Your task to perform on an android device: turn pop-ups on in chrome Image 0: 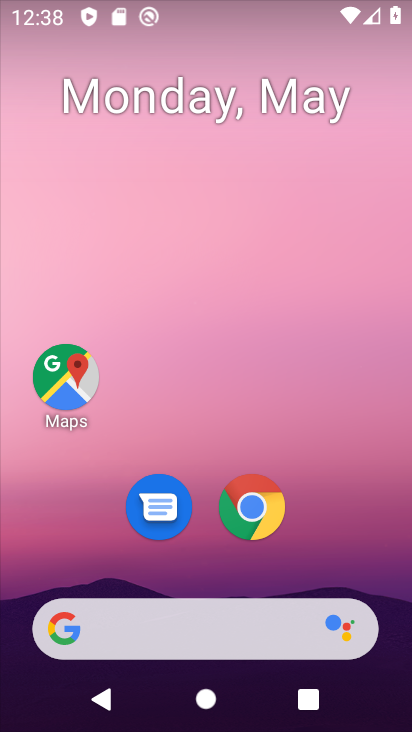
Step 0: click (257, 521)
Your task to perform on an android device: turn pop-ups on in chrome Image 1: 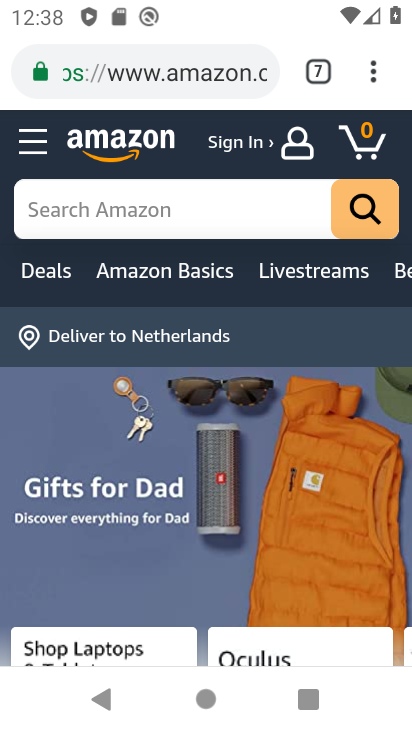
Step 1: click (372, 78)
Your task to perform on an android device: turn pop-ups on in chrome Image 2: 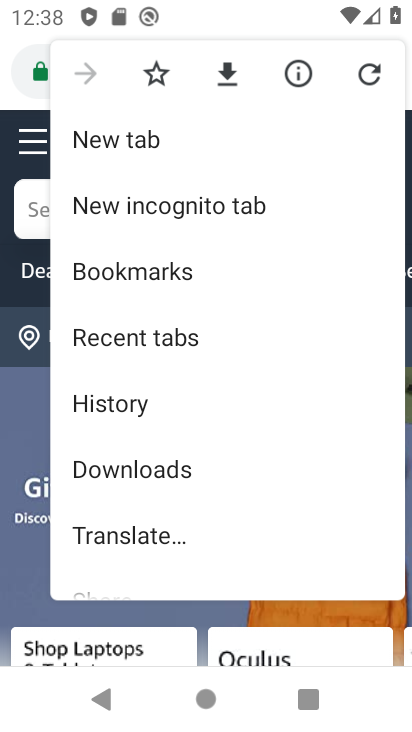
Step 2: drag from (164, 513) to (164, 166)
Your task to perform on an android device: turn pop-ups on in chrome Image 3: 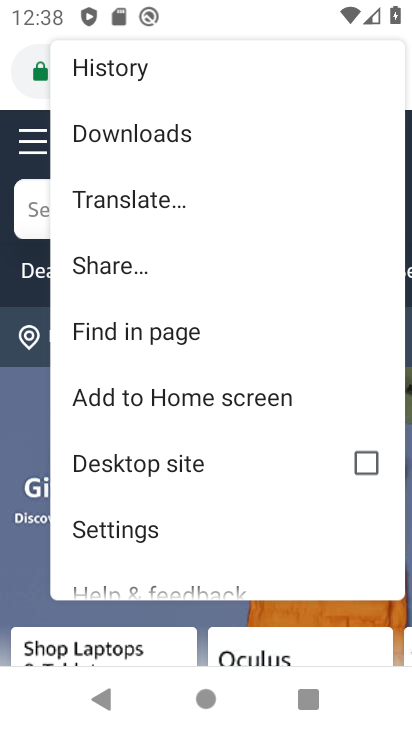
Step 3: click (133, 525)
Your task to perform on an android device: turn pop-ups on in chrome Image 4: 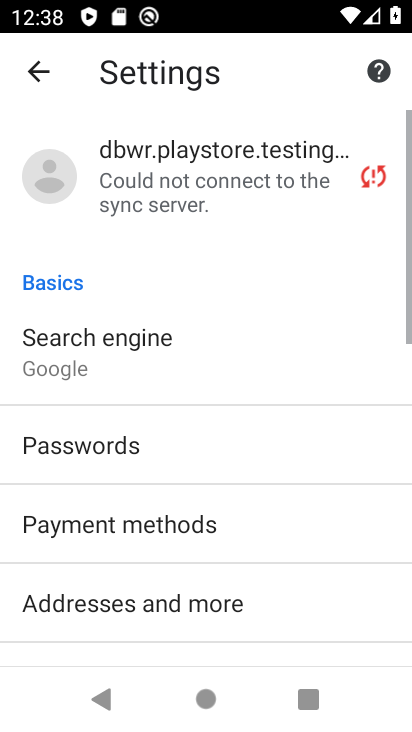
Step 4: drag from (147, 643) to (158, 265)
Your task to perform on an android device: turn pop-ups on in chrome Image 5: 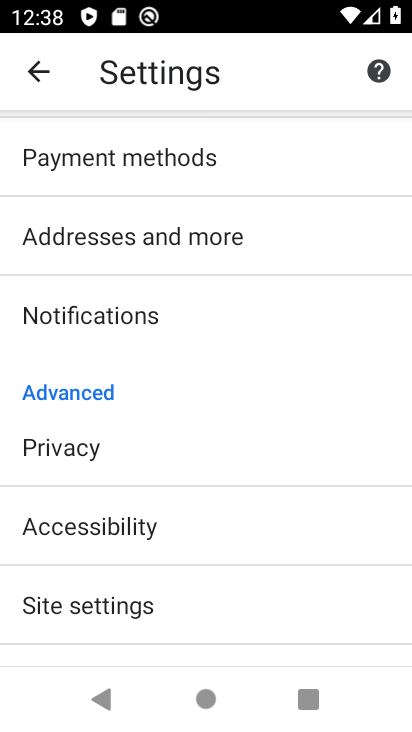
Step 5: drag from (177, 610) to (172, 206)
Your task to perform on an android device: turn pop-ups on in chrome Image 6: 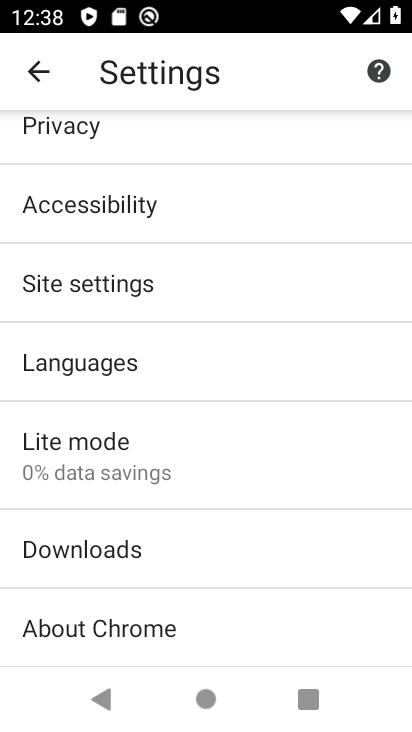
Step 6: click (101, 284)
Your task to perform on an android device: turn pop-ups on in chrome Image 7: 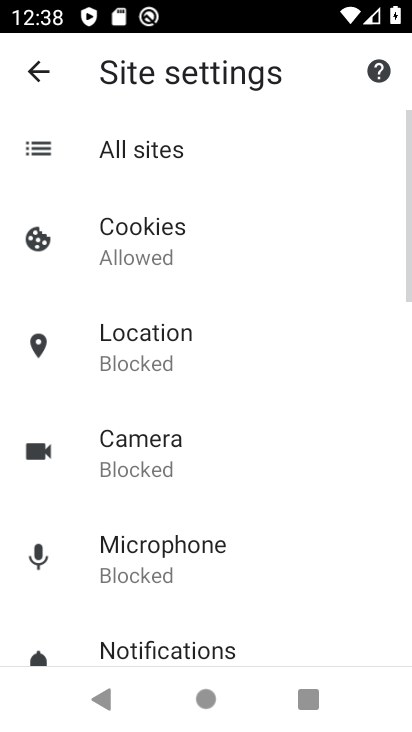
Step 7: drag from (128, 622) to (127, 208)
Your task to perform on an android device: turn pop-ups on in chrome Image 8: 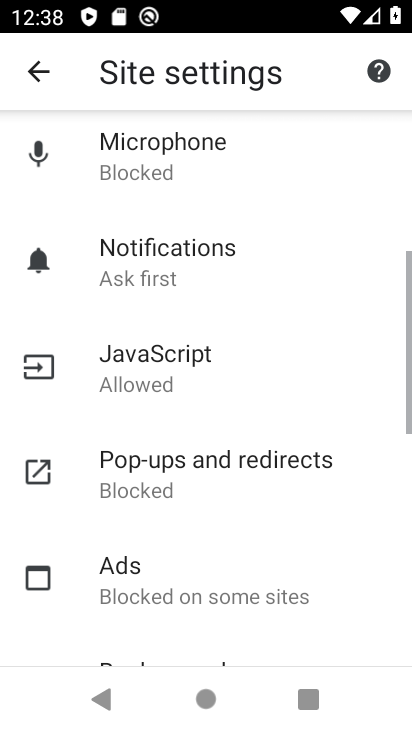
Step 8: click (145, 471)
Your task to perform on an android device: turn pop-ups on in chrome Image 9: 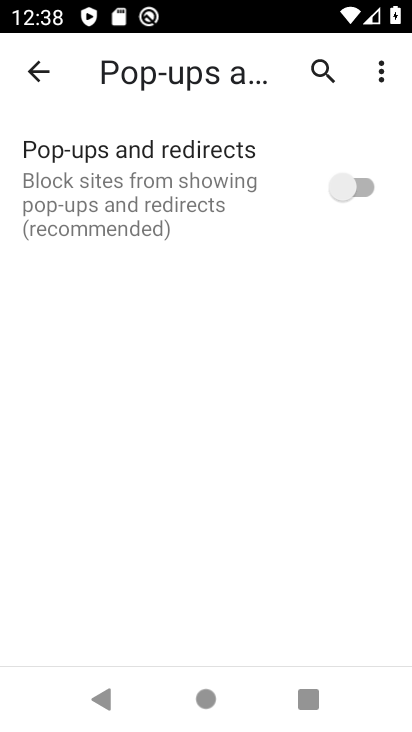
Step 9: click (365, 177)
Your task to perform on an android device: turn pop-ups on in chrome Image 10: 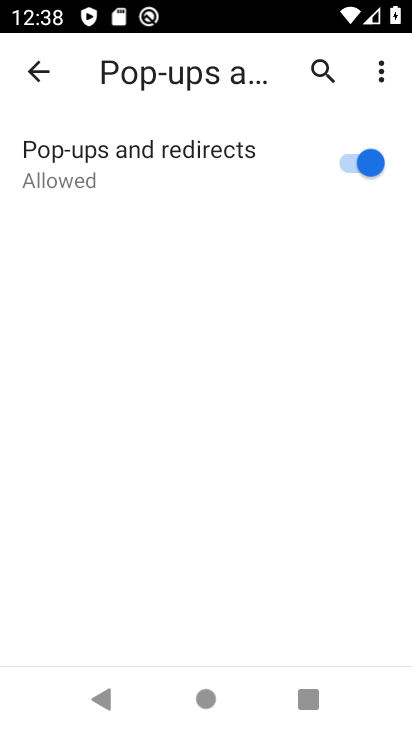
Step 10: task complete